Your task to perform on an android device: turn off data saver in the chrome app Image 0: 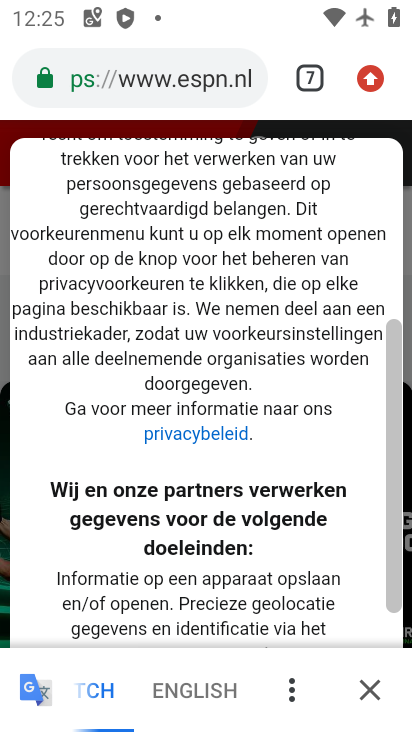
Step 0: press home button
Your task to perform on an android device: turn off data saver in the chrome app Image 1: 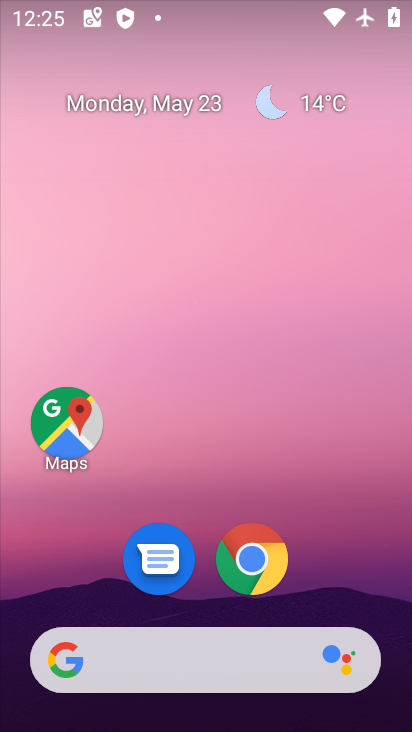
Step 1: click (266, 562)
Your task to perform on an android device: turn off data saver in the chrome app Image 2: 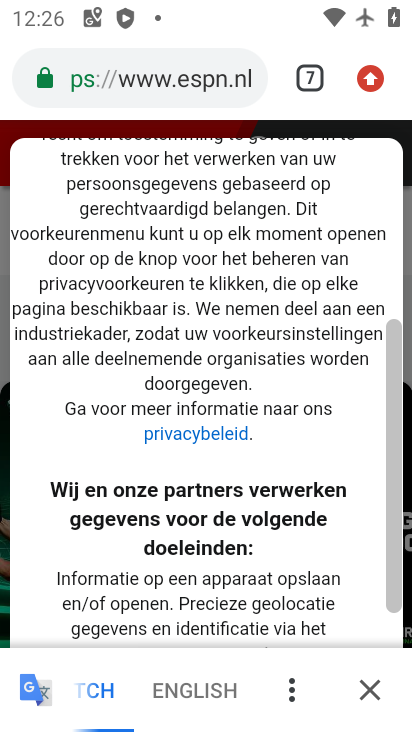
Step 2: click (366, 88)
Your task to perform on an android device: turn off data saver in the chrome app Image 3: 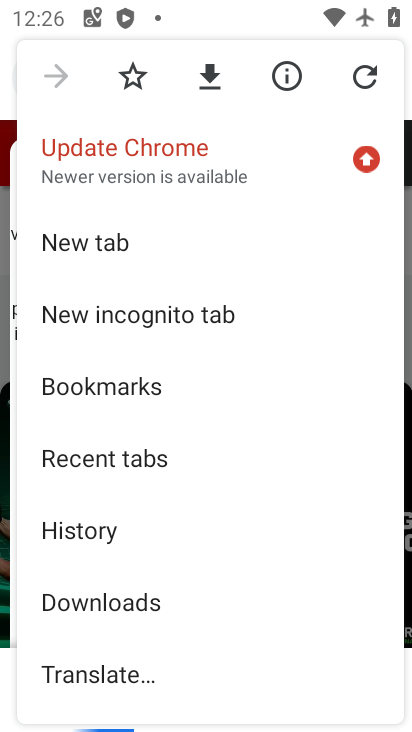
Step 3: drag from (111, 576) to (100, 165)
Your task to perform on an android device: turn off data saver in the chrome app Image 4: 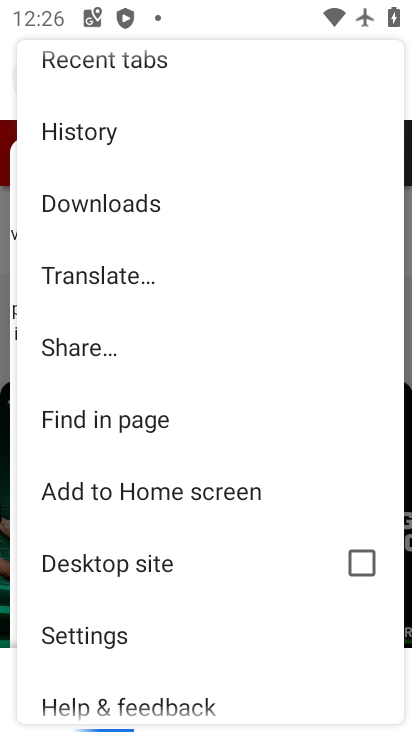
Step 4: click (84, 636)
Your task to perform on an android device: turn off data saver in the chrome app Image 5: 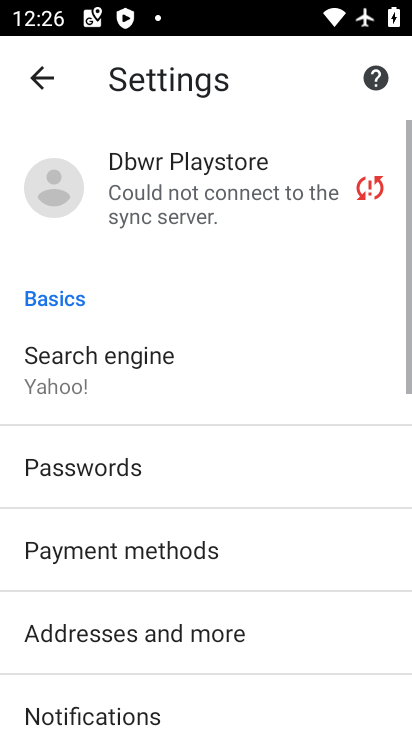
Step 5: drag from (160, 624) to (127, 119)
Your task to perform on an android device: turn off data saver in the chrome app Image 6: 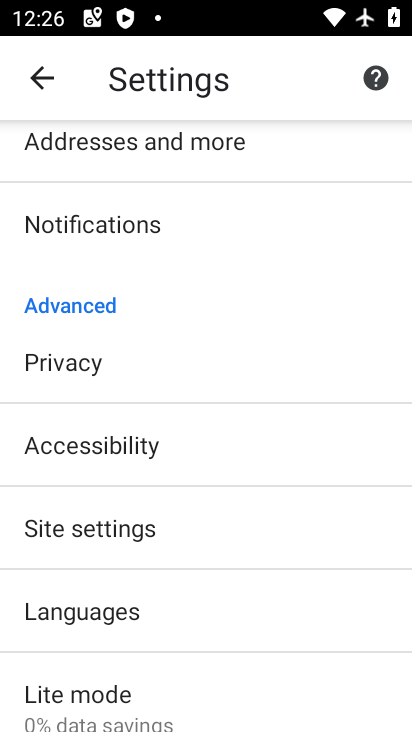
Step 6: drag from (181, 561) to (148, 177)
Your task to perform on an android device: turn off data saver in the chrome app Image 7: 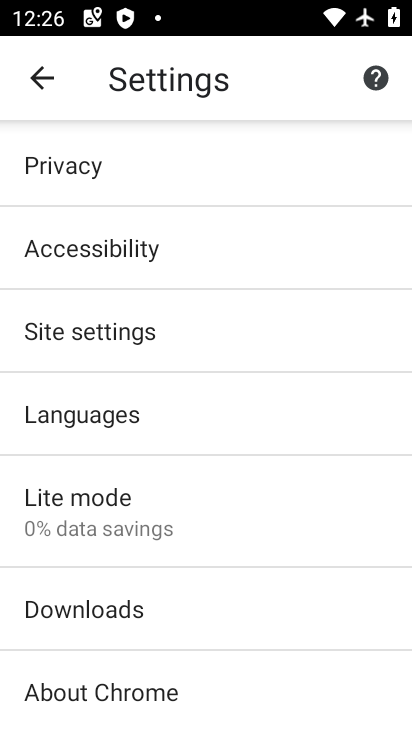
Step 7: click (72, 521)
Your task to perform on an android device: turn off data saver in the chrome app Image 8: 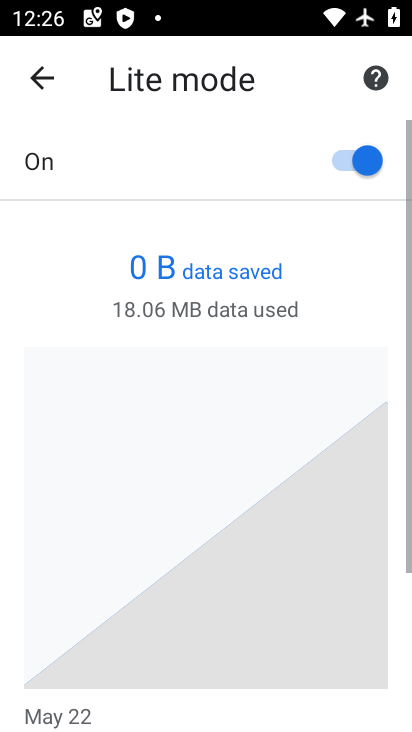
Step 8: click (366, 160)
Your task to perform on an android device: turn off data saver in the chrome app Image 9: 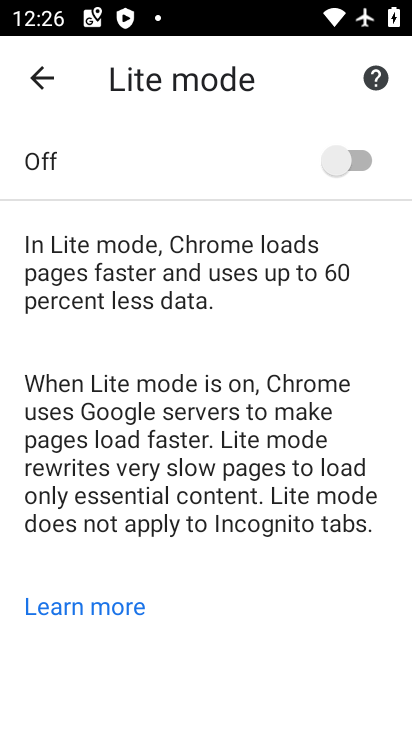
Step 9: task complete